Your task to perform on an android device: move a message to another label in the gmail app Image 0: 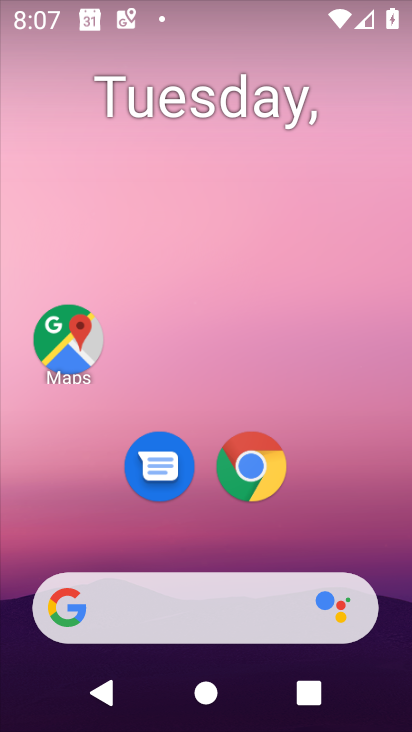
Step 0: drag from (349, 532) to (362, 61)
Your task to perform on an android device: move a message to another label in the gmail app Image 1: 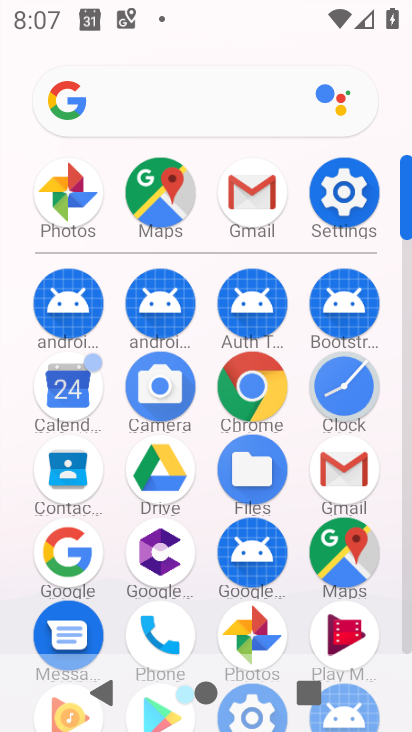
Step 1: click (251, 186)
Your task to perform on an android device: move a message to another label in the gmail app Image 2: 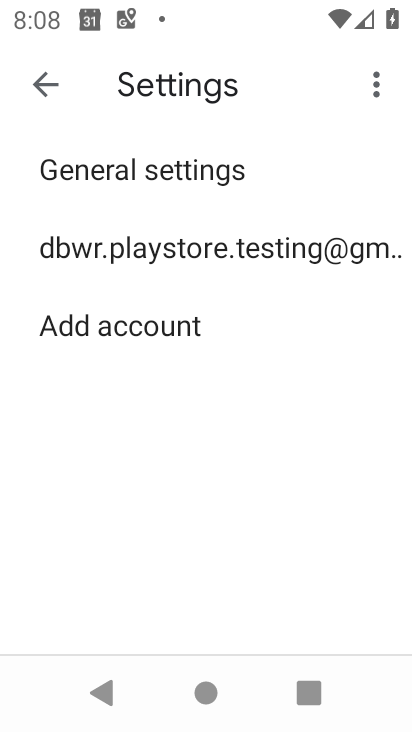
Step 2: click (40, 92)
Your task to perform on an android device: move a message to another label in the gmail app Image 3: 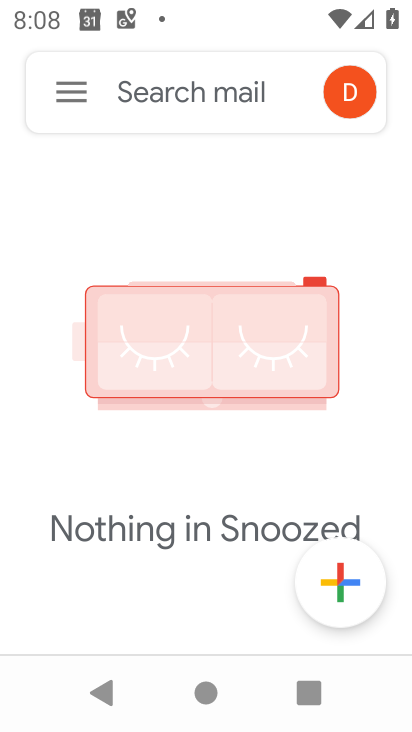
Step 3: click (40, 92)
Your task to perform on an android device: move a message to another label in the gmail app Image 4: 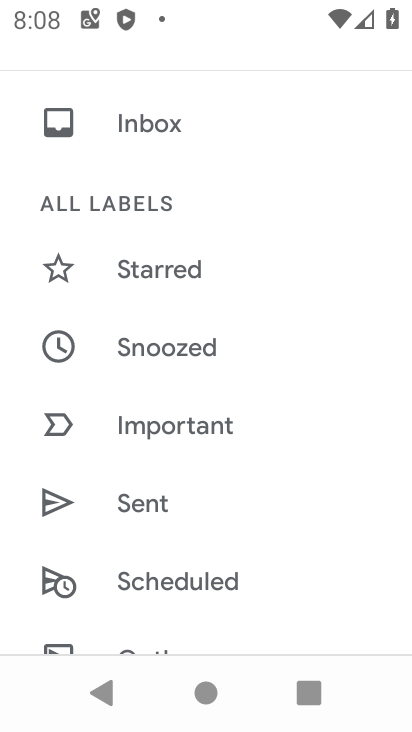
Step 4: click (183, 125)
Your task to perform on an android device: move a message to another label in the gmail app Image 5: 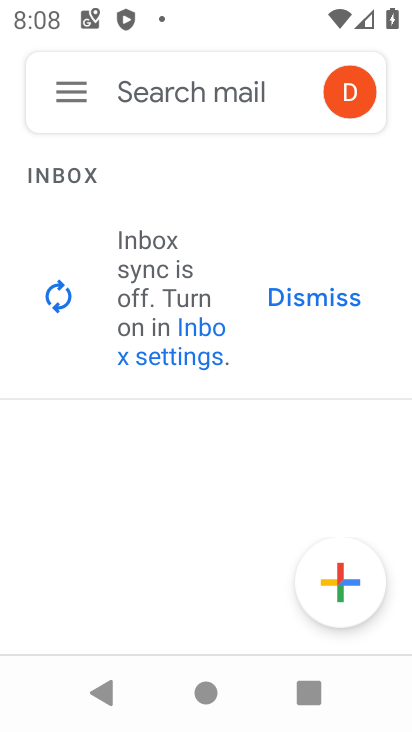
Step 5: task complete